Your task to perform on an android device: change alarm snooze length Image 0: 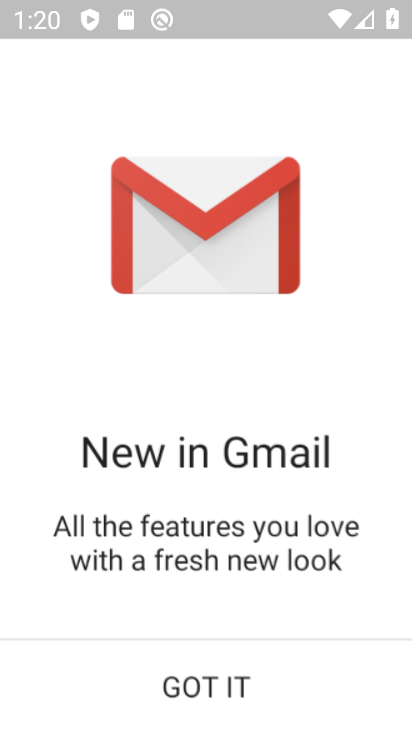
Step 0: press home button
Your task to perform on an android device: change alarm snooze length Image 1: 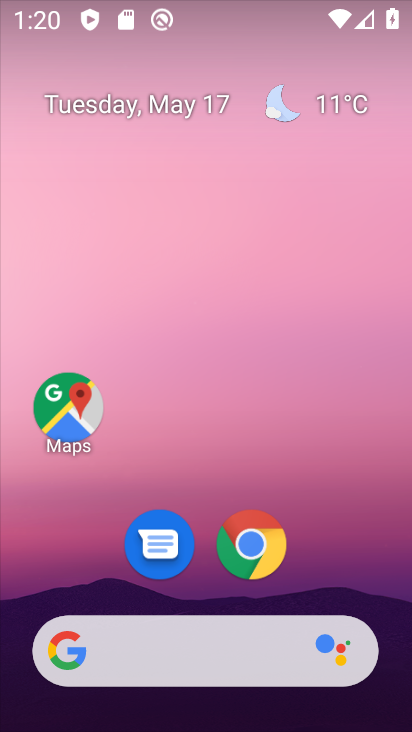
Step 1: drag from (290, 318) to (293, 86)
Your task to perform on an android device: change alarm snooze length Image 2: 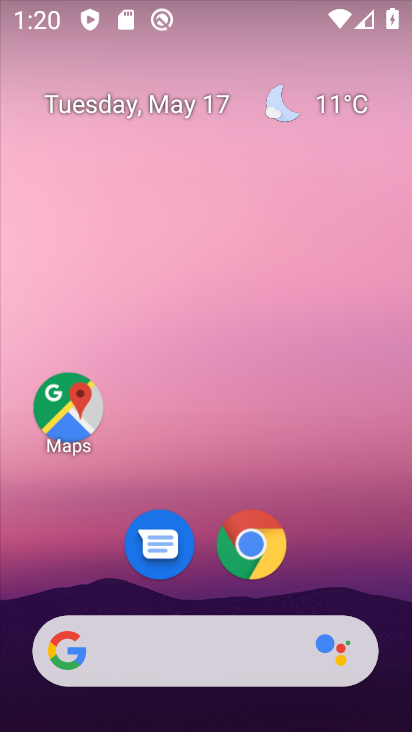
Step 2: drag from (372, 550) to (361, 210)
Your task to perform on an android device: change alarm snooze length Image 3: 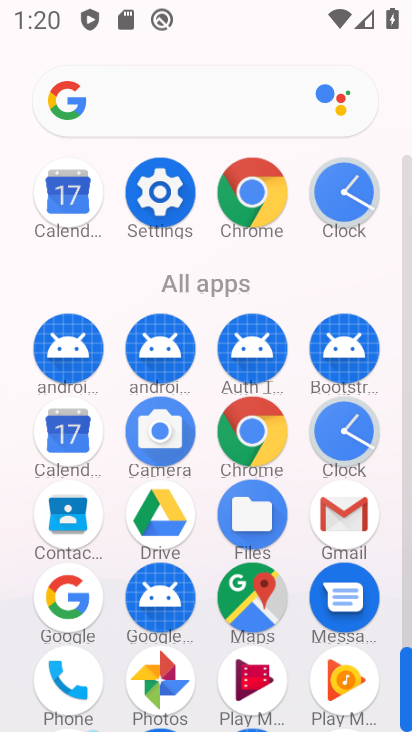
Step 3: click (331, 432)
Your task to perform on an android device: change alarm snooze length Image 4: 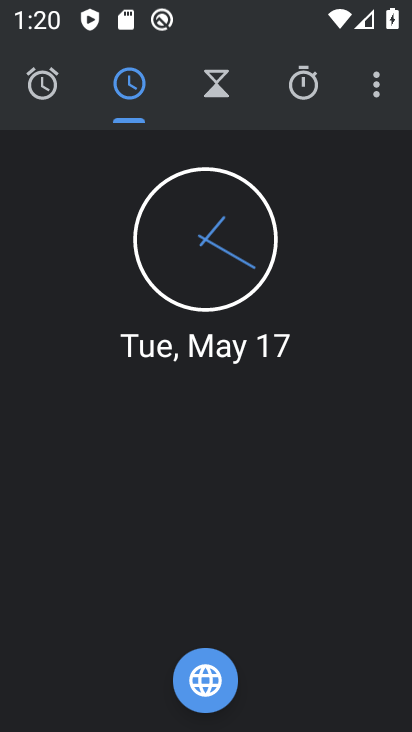
Step 4: click (383, 74)
Your task to perform on an android device: change alarm snooze length Image 5: 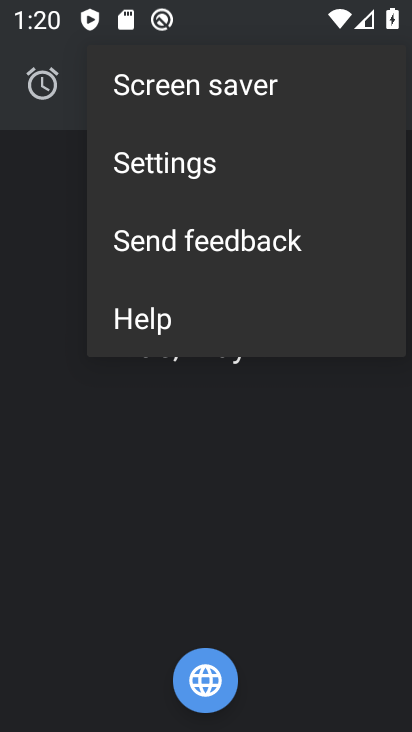
Step 5: click (267, 165)
Your task to perform on an android device: change alarm snooze length Image 6: 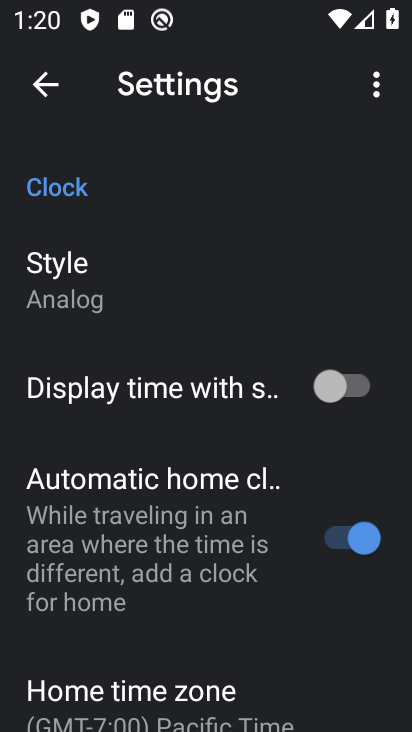
Step 6: drag from (187, 470) to (119, 47)
Your task to perform on an android device: change alarm snooze length Image 7: 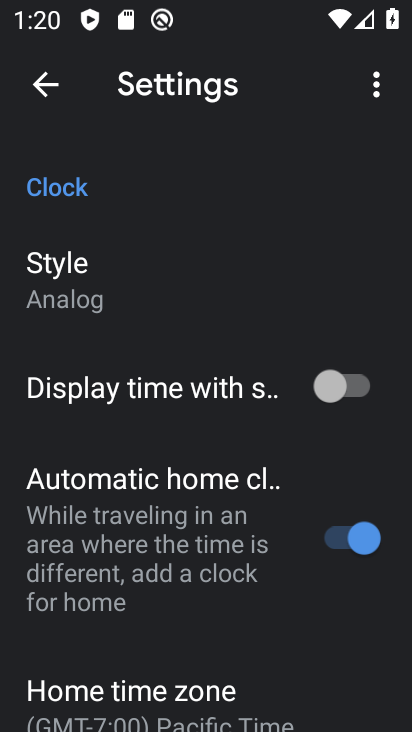
Step 7: drag from (234, 648) to (214, 233)
Your task to perform on an android device: change alarm snooze length Image 8: 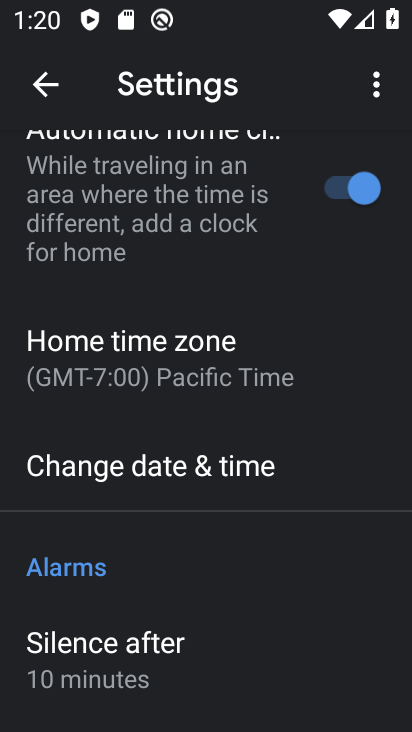
Step 8: drag from (226, 602) to (236, 378)
Your task to perform on an android device: change alarm snooze length Image 9: 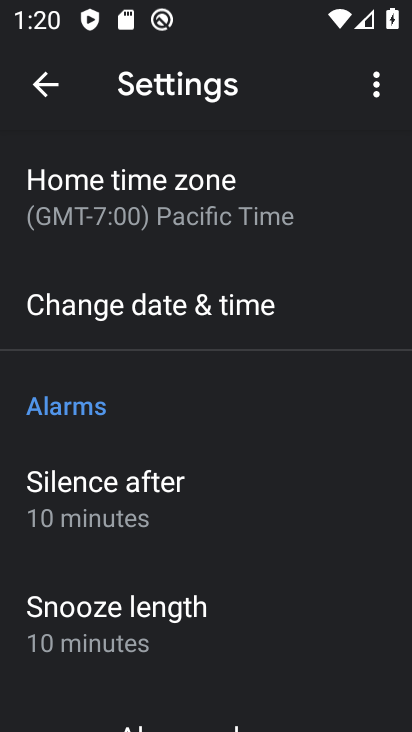
Step 9: click (195, 638)
Your task to perform on an android device: change alarm snooze length Image 10: 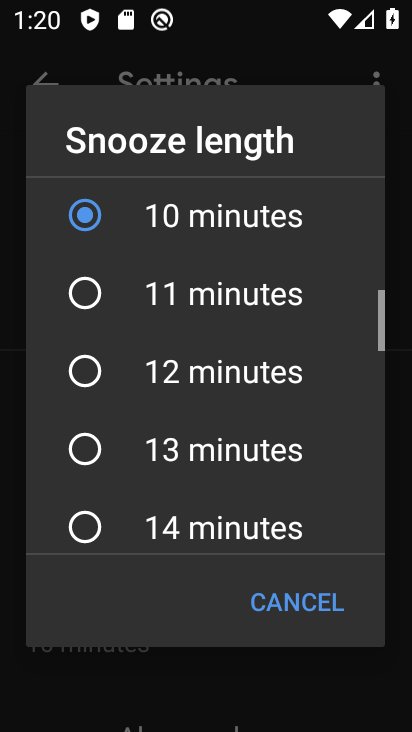
Step 10: click (172, 291)
Your task to perform on an android device: change alarm snooze length Image 11: 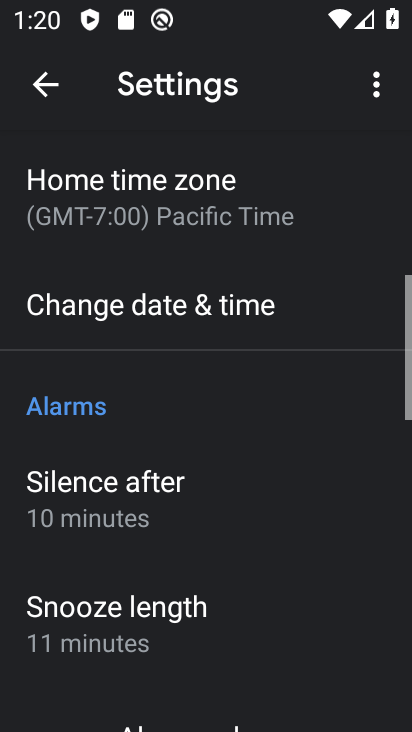
Step 11: task complete